Your task to perform on an android device: turn off wifi Image 0: 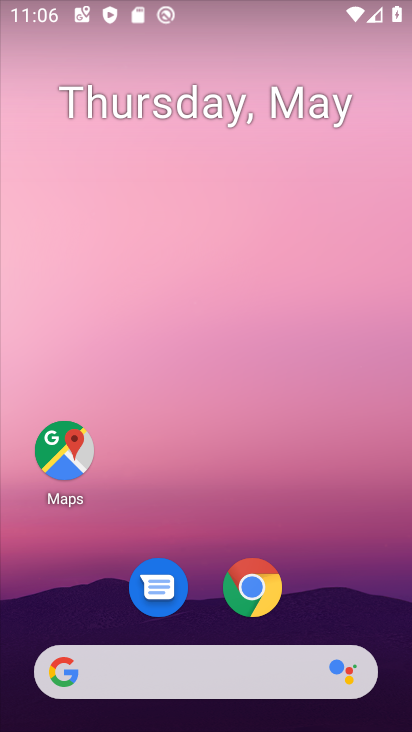
Step 0: drag from (70, 618) to (202, 197)
Your task to perform on an android device: turn off wifi Image 1: 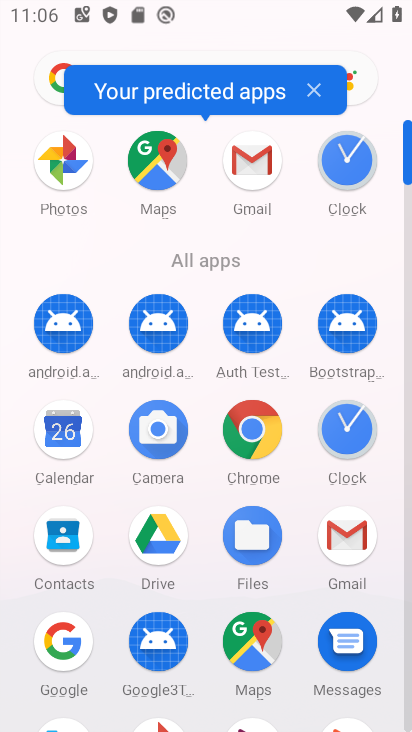
Step 1: drag from (161, 581) to (200, 431)
Your task to perform on an android device: turn off wifi Image 2: 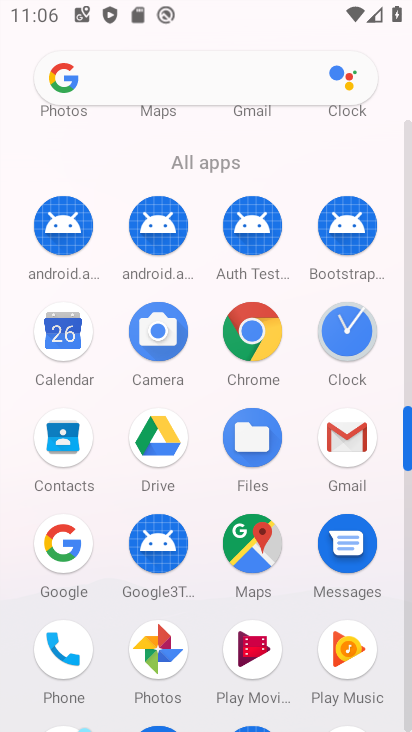
Step 2: drag from (205, 648) to (260, 392)
Your task to perform on an android device: turn off wifi Image 3: 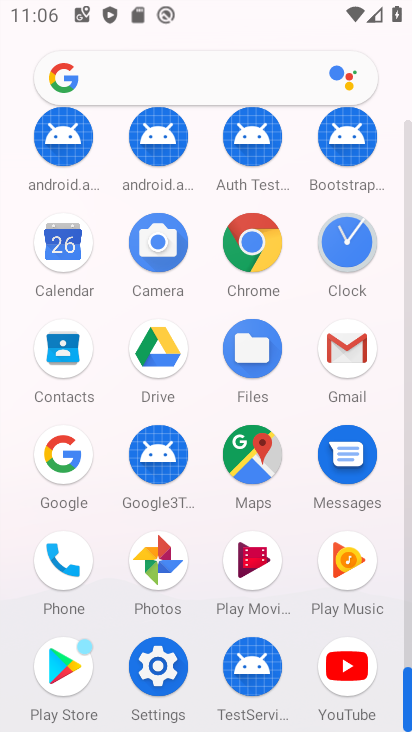
Step 3: click (169, 687)
Your task to perform on an android device: turn off wifi Image 4: 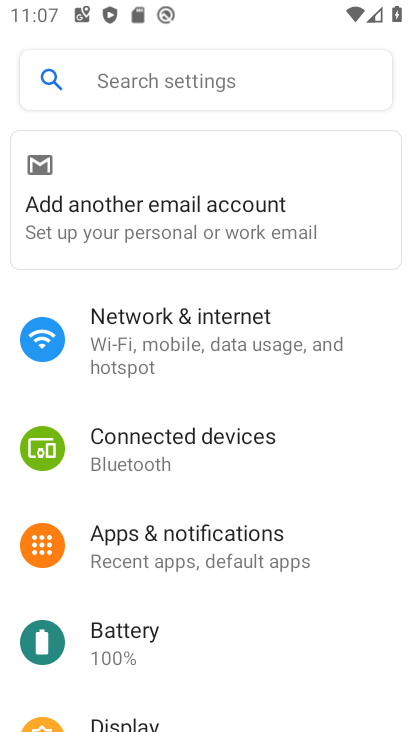
Step 4: click (257, 346)
Your task to perform on an android device: turn off wifi Image 5: 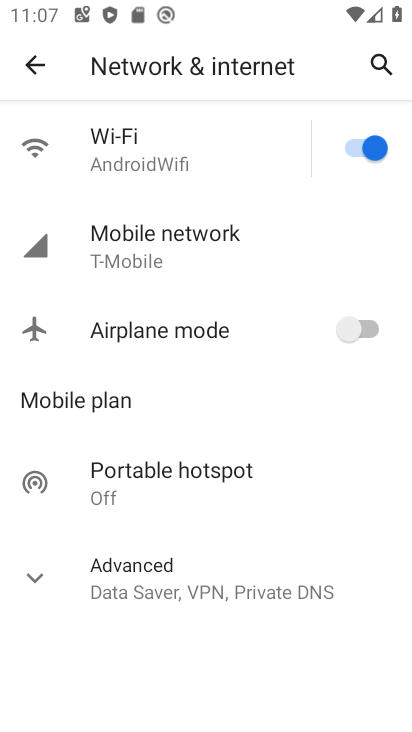
Step 5: click (350, 149)
Your task to perform on an android device: turn off wifi Image 6: 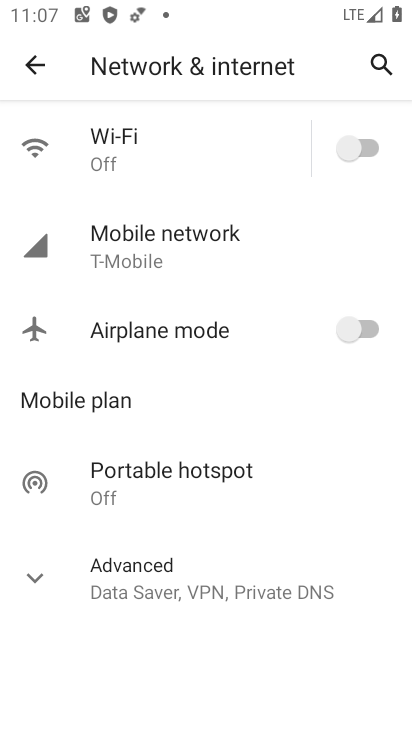
Step 6: task complete